Your task to perform on an android device: Search for vegetarian restaurants on Maps Image 0: 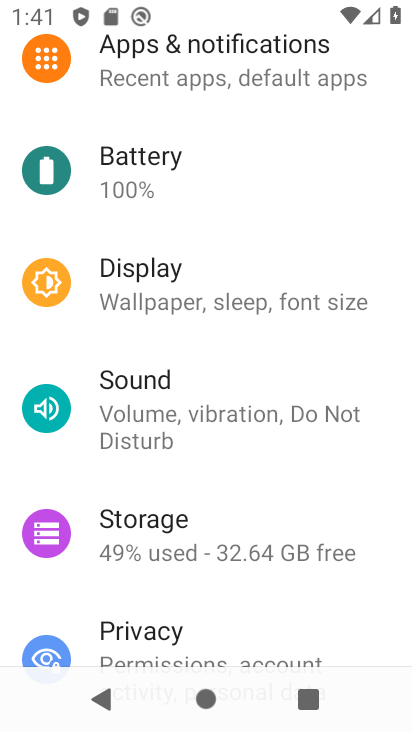
Step 0: press home button
Your task to perform on an android device: Search for vegetarian restaurants on Maps Image 1: 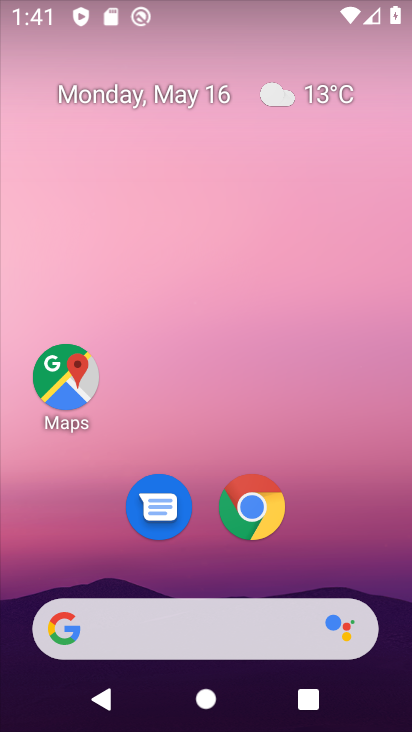
Step 1: drag from (366, 555) to (371, 69)
Your task to perform on an android device: Search for vegetarian restaurants on Maps Image 2: 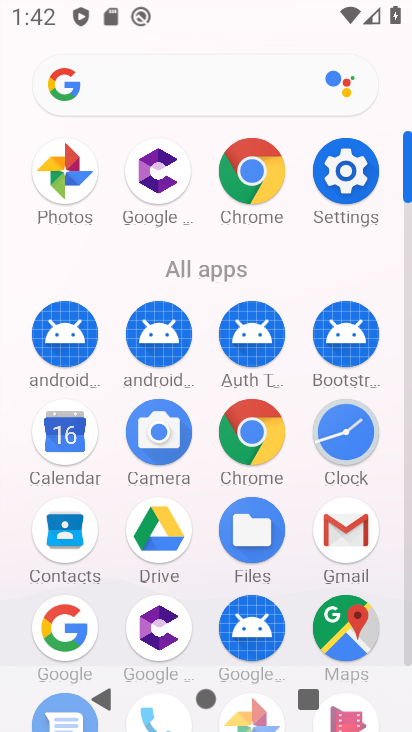
Step 2: click (357, 636)
Your task to perform on an android device: Search for vegetarian restaurants on Maps Image 3: 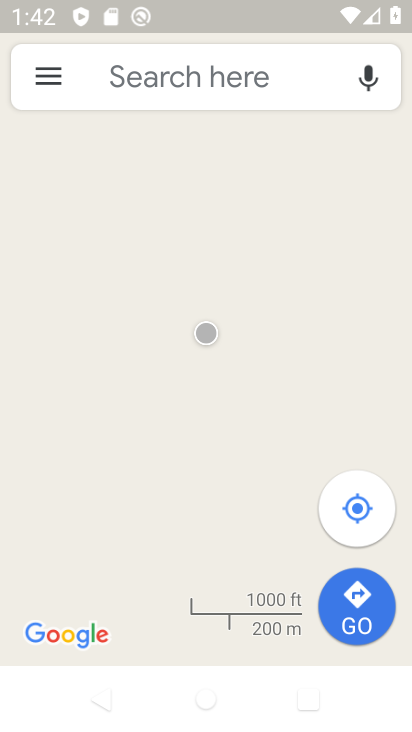
Step 3: click (229, 77)
Your task to perform on an android device: Search for vegetarian restaurants on Maps Image 4: 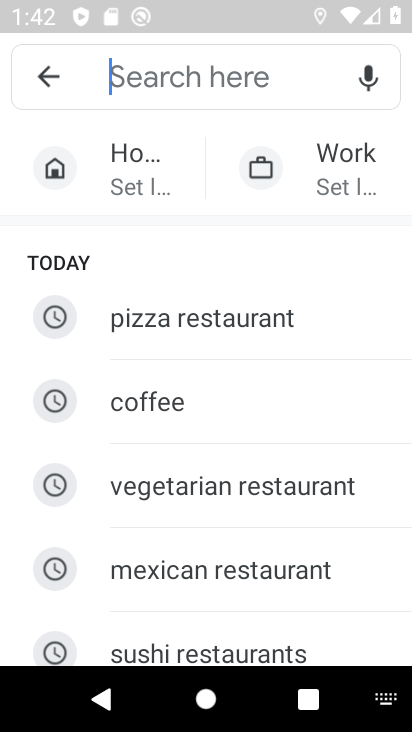
Step 4: type "vegetrain restaurants"
Your task to perform on an android device: Search for vegetarian restaurants on Maps Image 5: 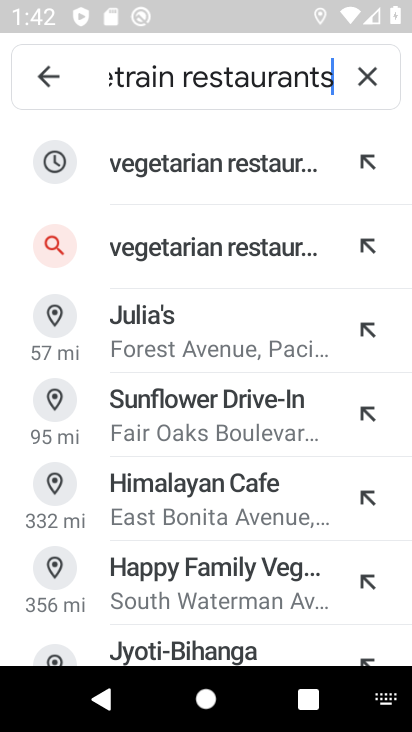
Step 5: click (153, 178)
Your task to perform on an android device: Search for vegetarian restaurants on Maps Image 6: 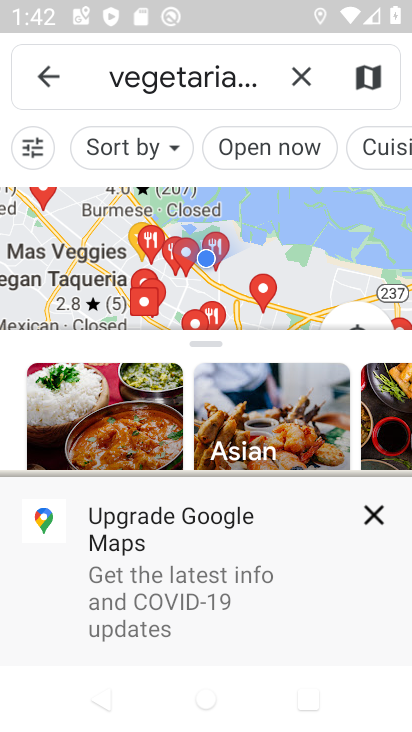
Step 6: task complete